Your task to perform on an android device: change the clock display to show seconds Image 0: 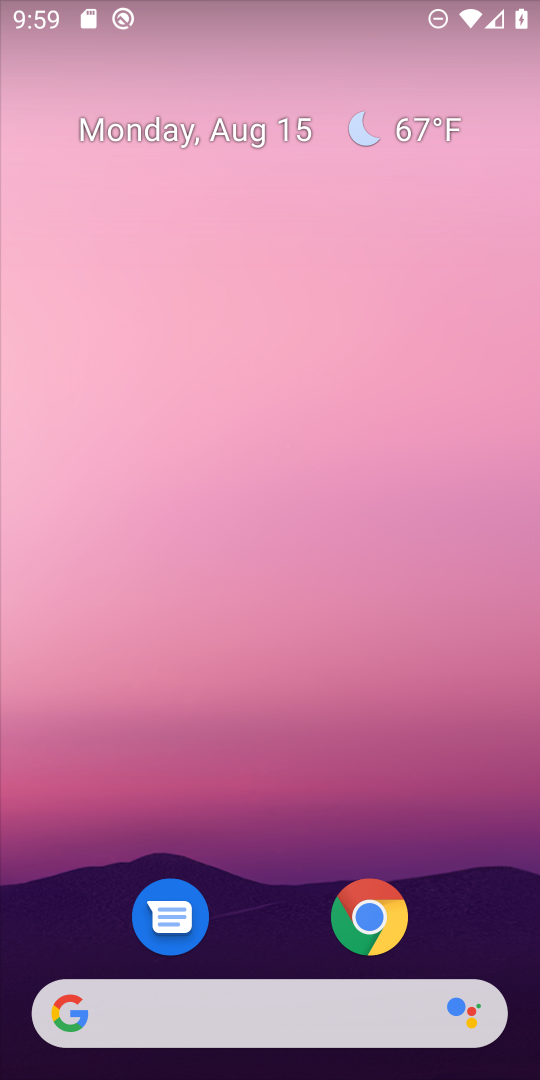
Step 0: drag from (282, 852) to (374, 2)
Your task to perform on an android device: change the clock display to show seconds Image 1: 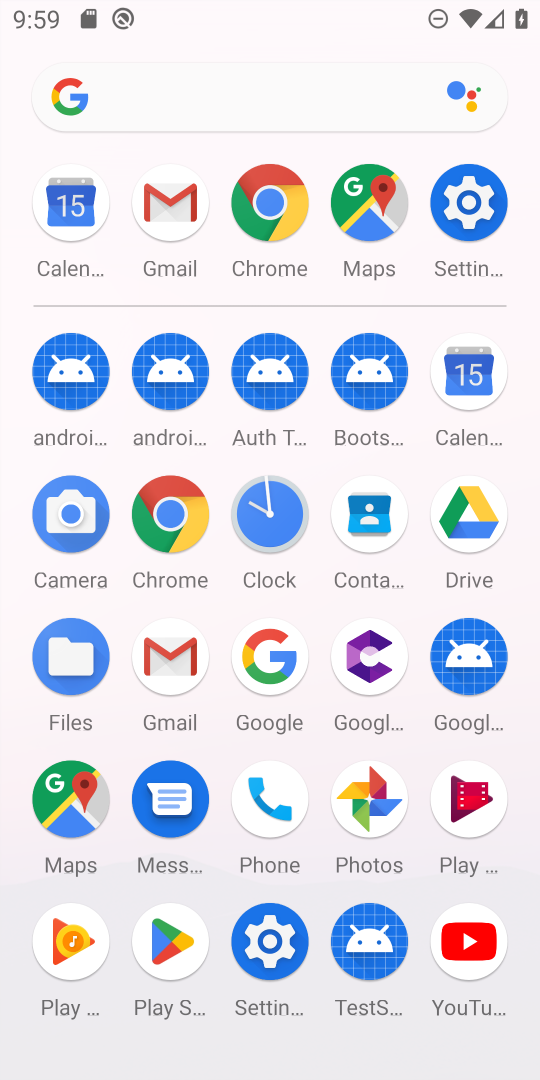
Step 1: click (273, 502)
Your task to perform on an android device: change the clock display to show seconds Image 2: 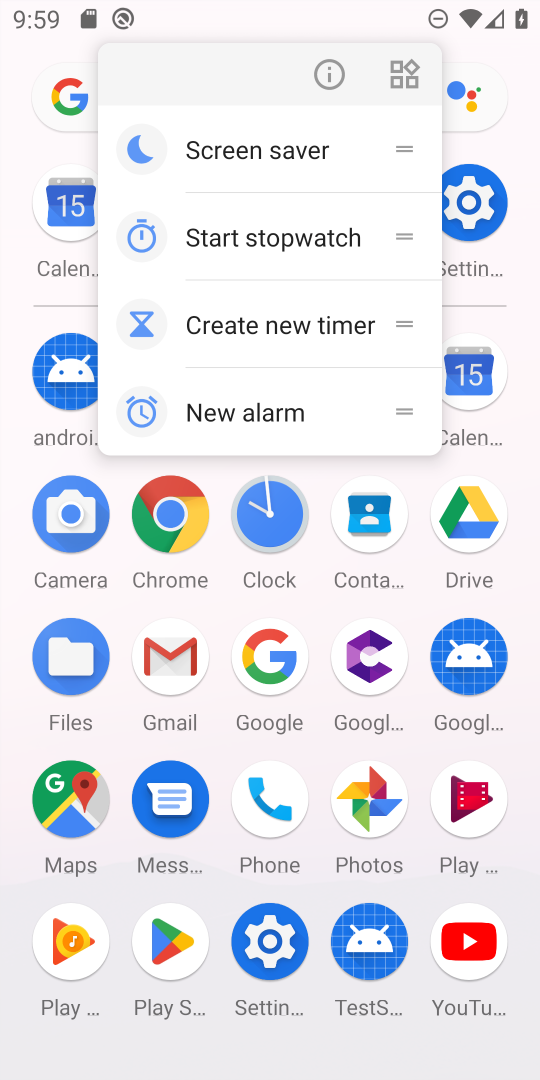
Step 2: click (273, 516)
Your task to perform on an android device: change the clock display to show seconds Image 3: 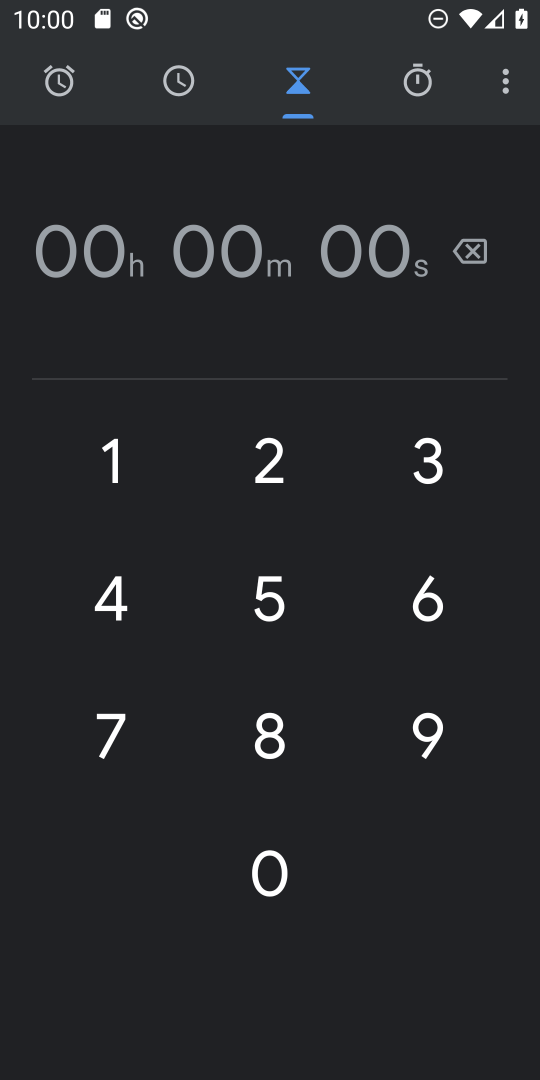
Step 3: click (172, 76)
Your task to perform on an android device: change the clock display to show seconds Image 4: 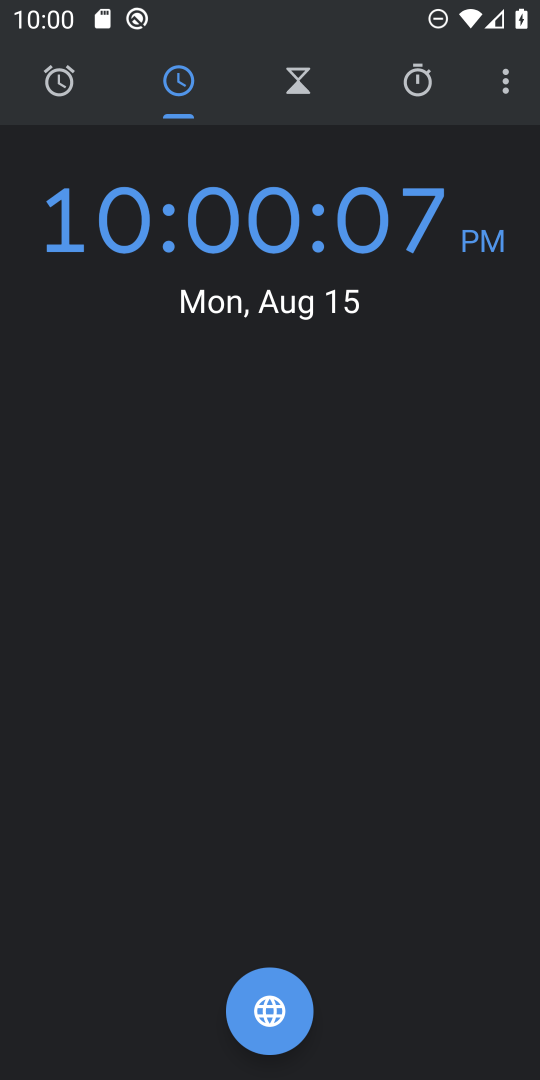
Step 4: task complete